Your task to perform on an android device: find which apps use the phone's location Image 0: 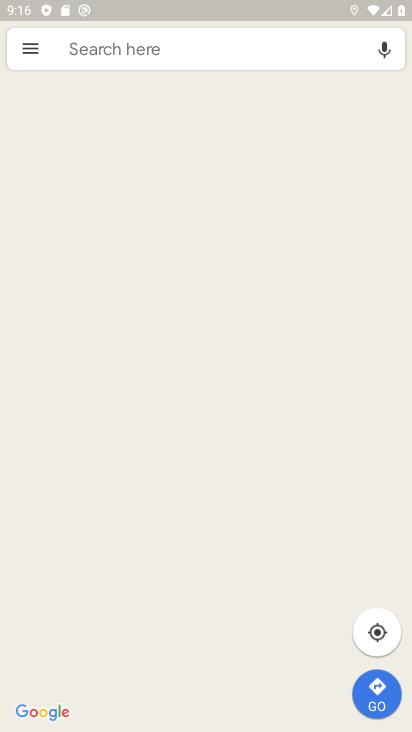
Step 0: press home button
Your task to perform on an android device: find which apps use the phone's location Image 1: 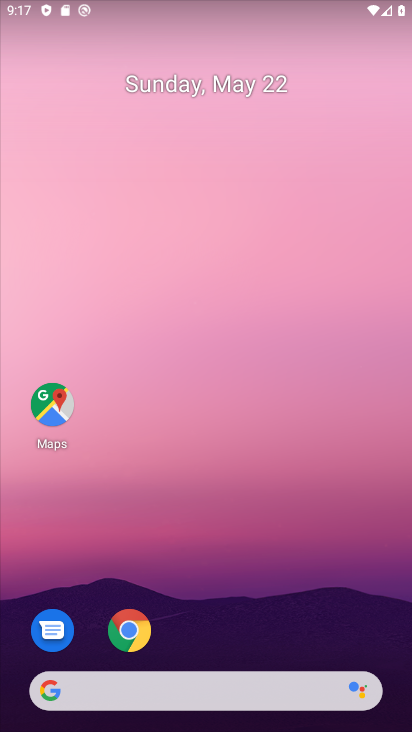
Step 1: drag from (400, 690) to (394, 201)
Your task to perform on an android device: find which apps use the phone's location Image 2: 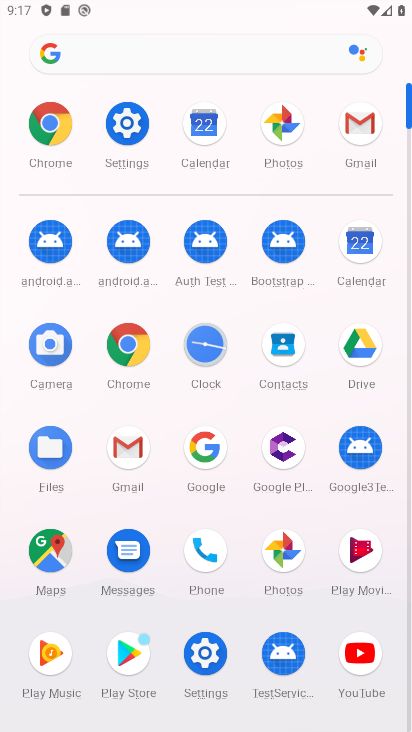
Step 2: click (194, 650)
Your task to perform on an android device: find which apps use the phone's location Image 3: 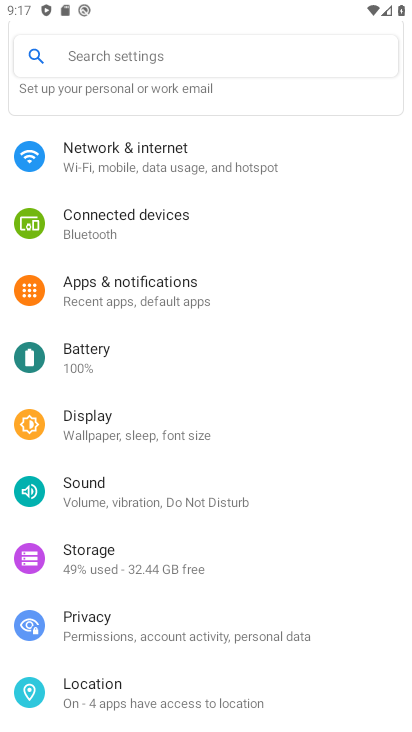
Step 3: click (88, 679)
Your task to perform on an android device: find which apps use the phone's location Image 4: 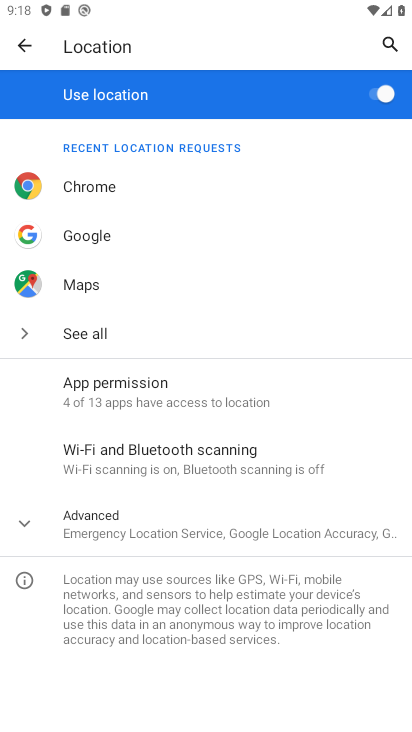
Step 4: click (63, 386)
Your task to perform on an android device: find which apps use the phone's location Image 5: 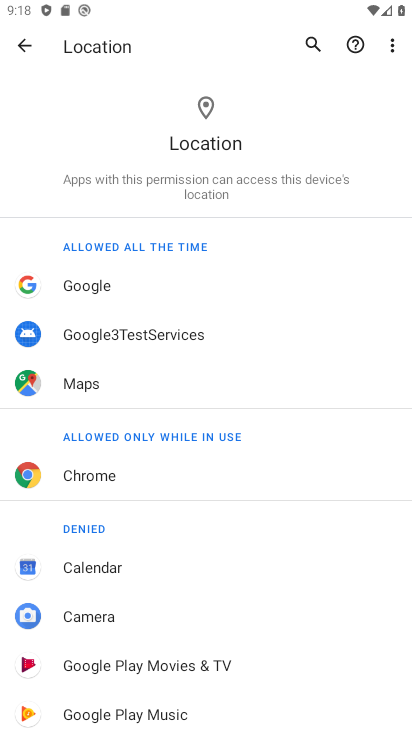
Step 5: task complete